Your task to perform on an android device: uninstall "LinkedIn" Image 0: 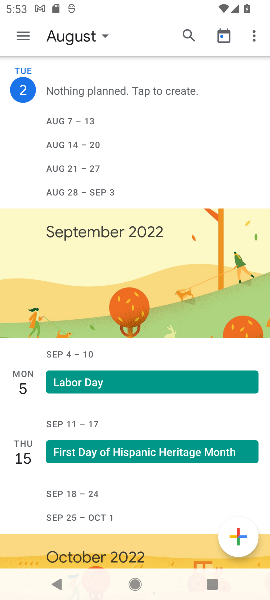
Step 0: press home button
Your task to perform on an android device: uninstall "LinkedIn" Image 1: 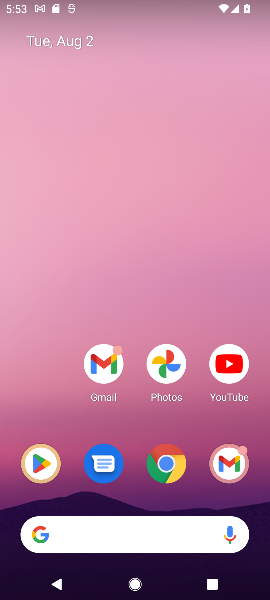
Step 1: click (42, 464)
Your task to perform on an android device: uninstall "LinkedIn" Image 2: 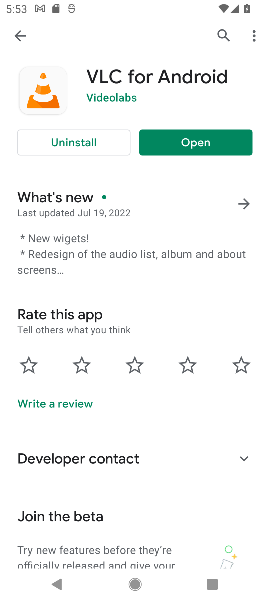
Step 2: click (223, 25)
Your task to perform on an android device: uninstall "LinkedIn" Image 3: 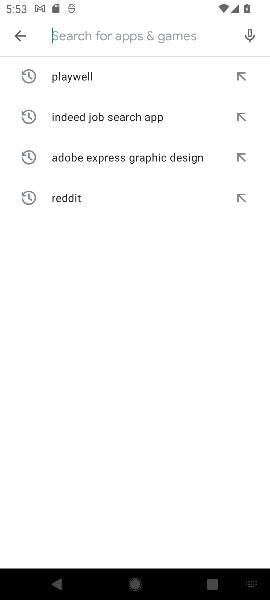
Step 3: type "LinkedIn"
Your task to perform on an android device: uninstall "LinkedIn" Image 4: 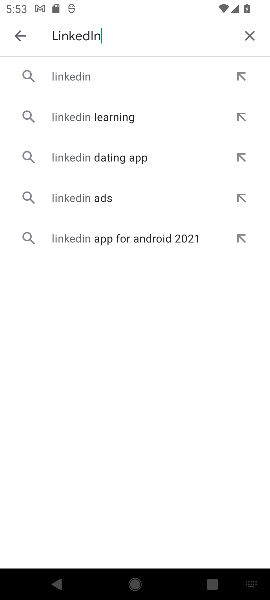
Step 4: click (74, 78)
Your task to perform on an android device: uninstall "LinkedIn" Image 5: 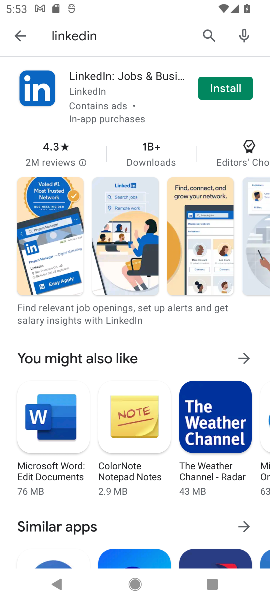
Step 5: task complete